Your task to perform on an android device: turn on airplane mode Image 0: 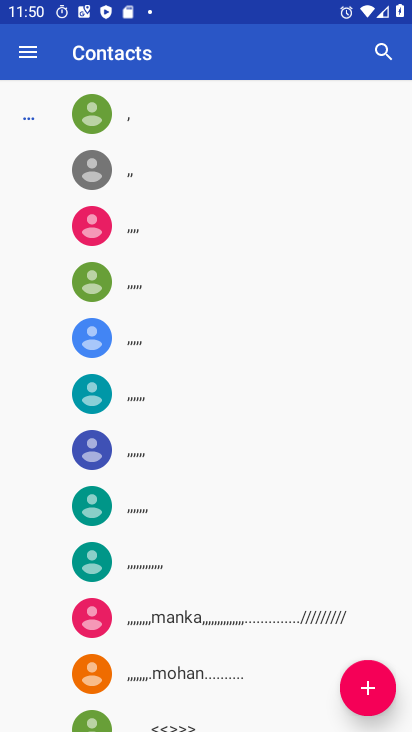
Step 0: press home button
Your task to perform on an android device: turn on airplane mode Image 1: 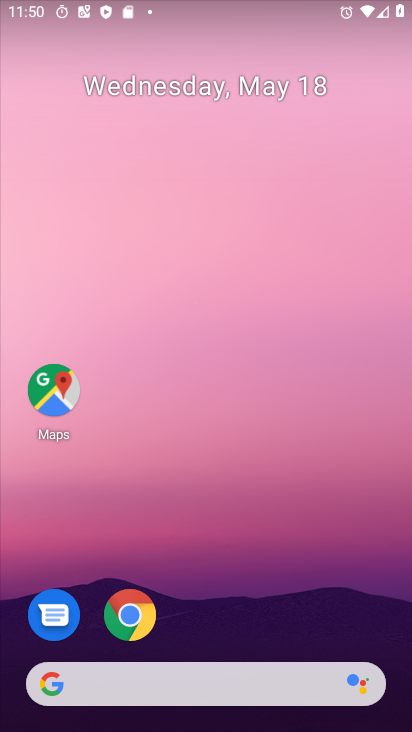
Step 1: drag from (23, 570) to (172, 255)
Your task to perform on an android device: turn on airplane mode Image 2: 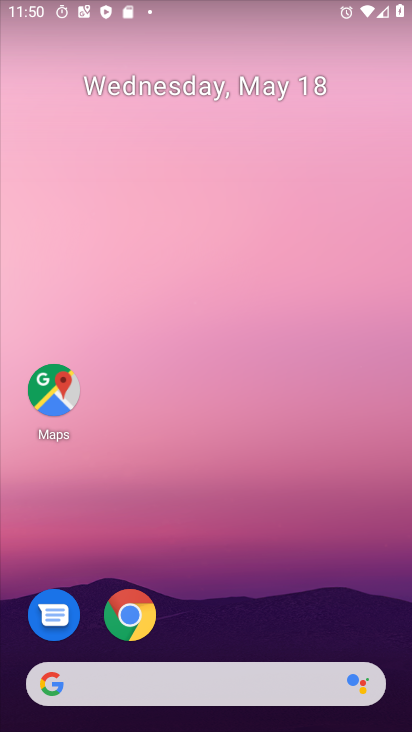
Step 2: drag from (16, 584) to (231, 158)
Your task to perform on an android device: turn on airplane mode Image 3: 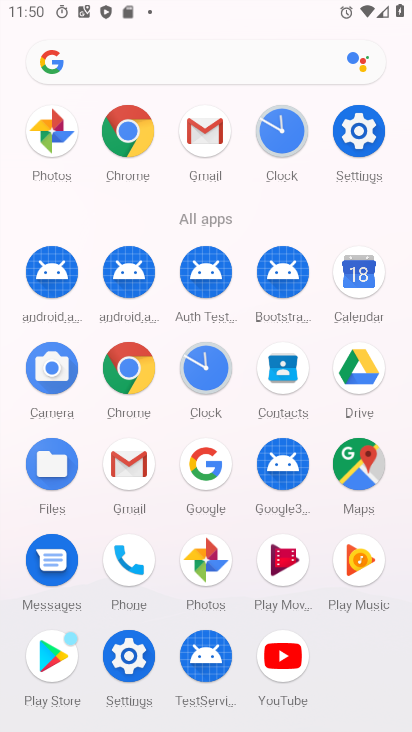
Step 3: click (365, 132)
Your task to perform on an android device: turn on airplane mode Image 4: 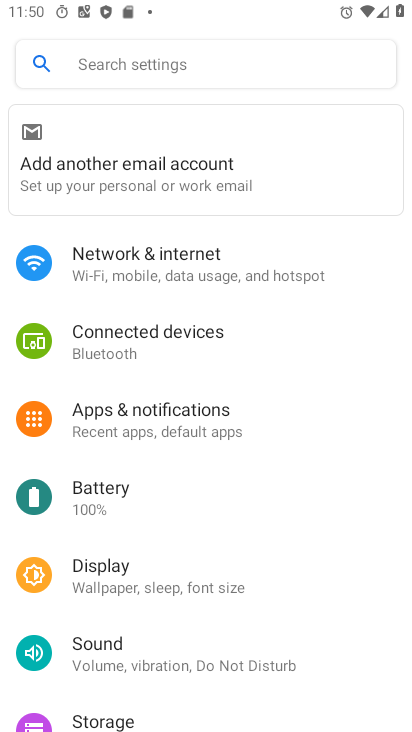
Step 4: click (178, 273)
Your task to perform on an android device: turn on airplane mode Image 5: 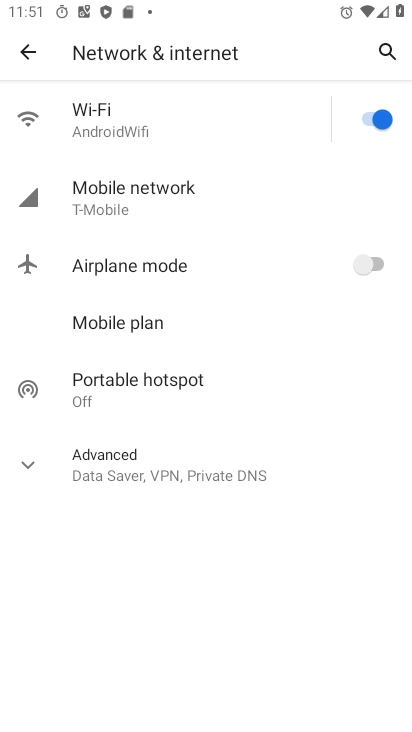
Step 5: click (362, 262)
Your task to perform on an android device: turn on airplane mode Image 6: 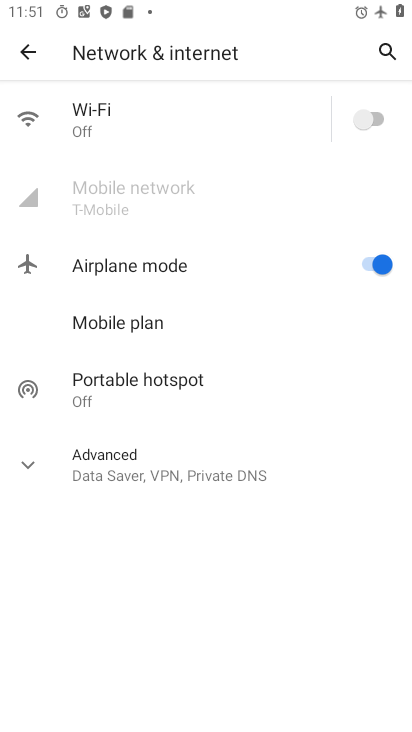
Step 6: task complete